Your task to perform on an android device: turn on airplane mode Image 0: 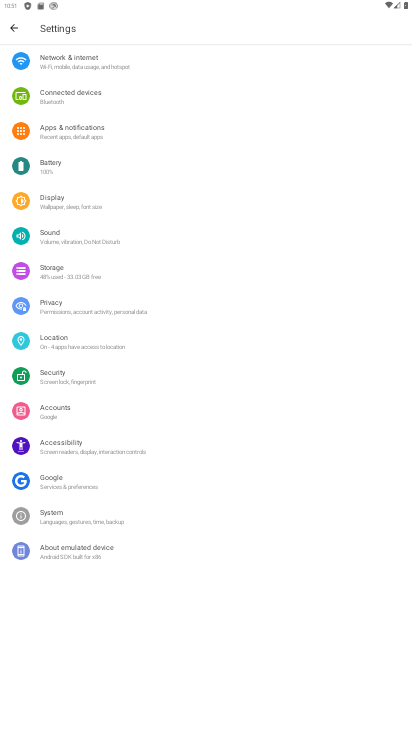
Step 0: click (103, 62)
Your task to perform on an android device: turn on airplane mode Image 1: 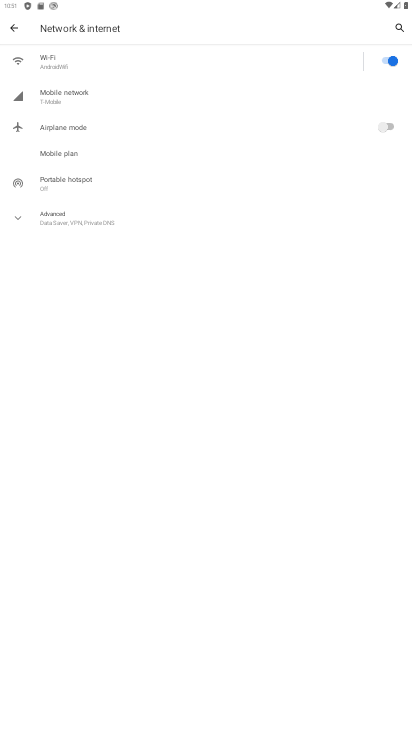
Step 1: click (392, 128)
Your task to perform on an android device: turn on airplane mode Image 2: 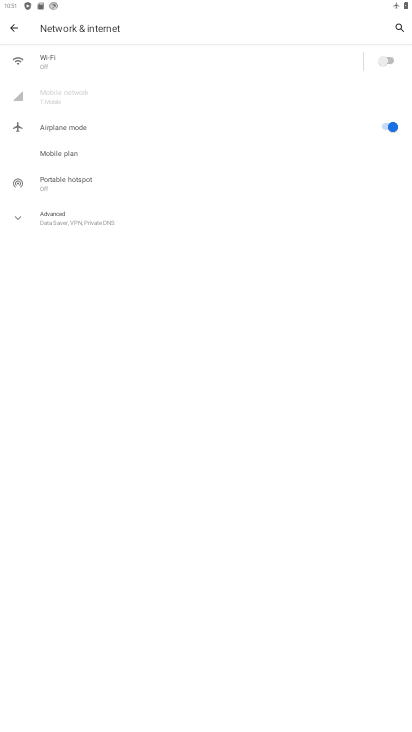
Step 2: task complete